Your task to perform on an android device: Open Google Image 0: 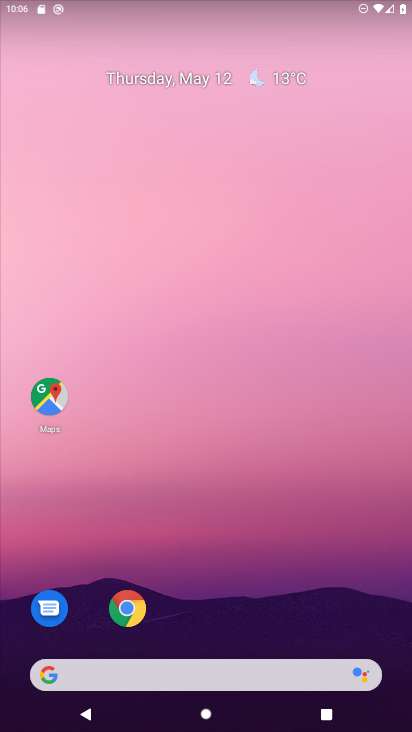
Step 0: drag from (231, 617) to (245, 192)
Your task to perform on an android device: Open Google Image 1: 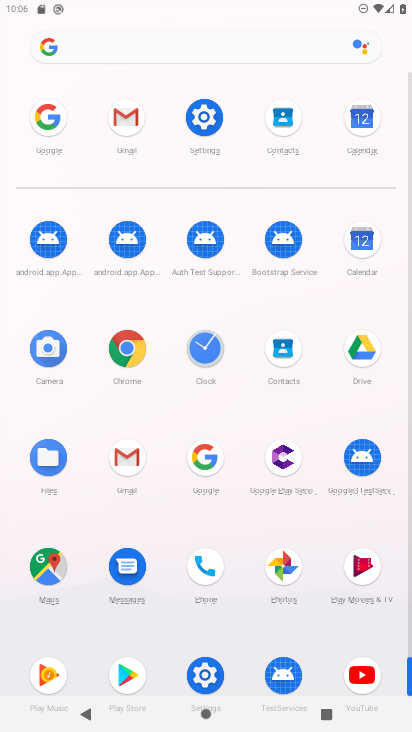
Step 1: click (208, 463)
Your task to perform on an android device: Open Google Image 2: 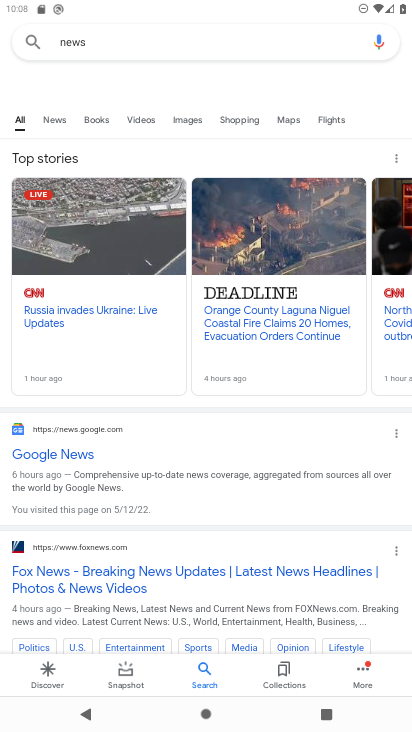
Step 2: task complete